Your task to perform on an android device: change keyboard looks Image 0: 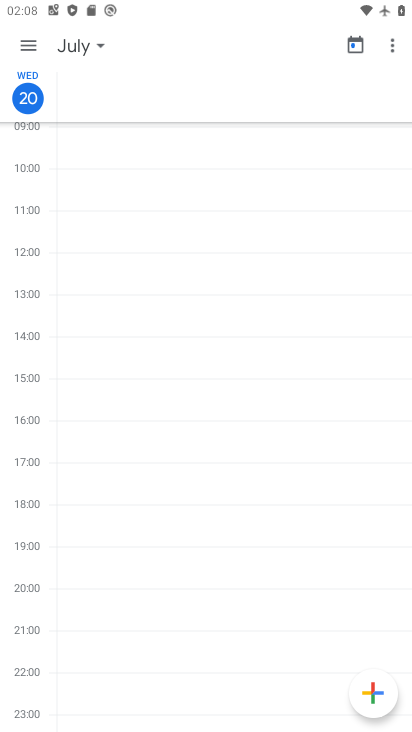
Step 0: press home button
Your task to perform on an android device: change keyboard looks Image 1: 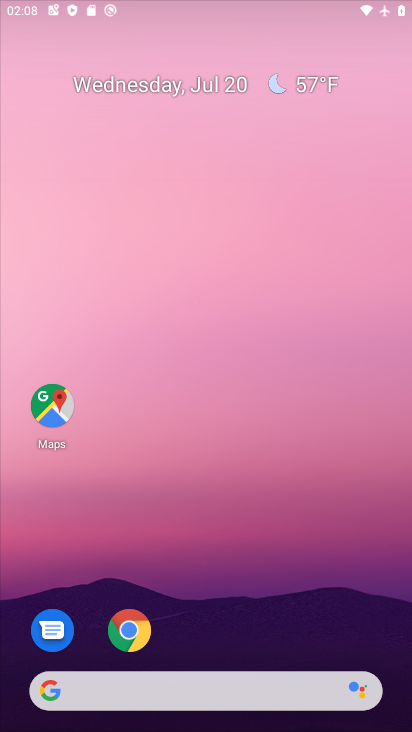
Step 1: drag from (315, 609) to (267, 95)
Your task to perform on an android device: change keyboard looks Image 2: 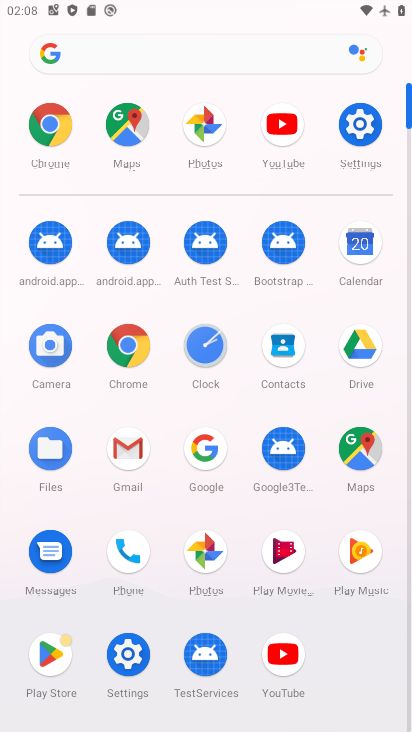
Step 2: click (353, 120)
Your task to perform on an android device: change keyboard looks Image 3: 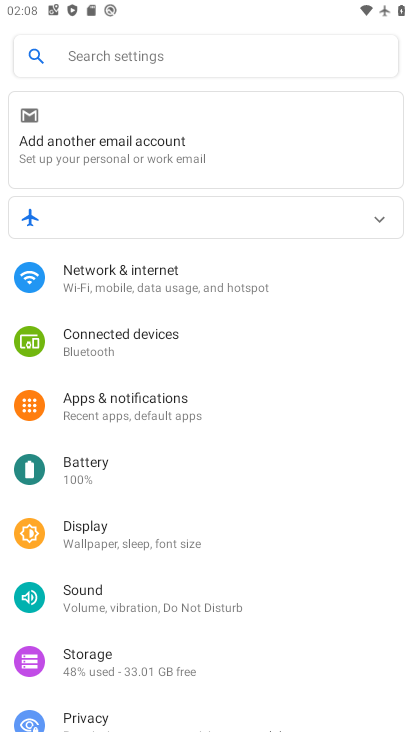
Step 3: drag from (209, 632) to (263, 97)
Your task to perform on an android device: change keyboard looks Image 4: 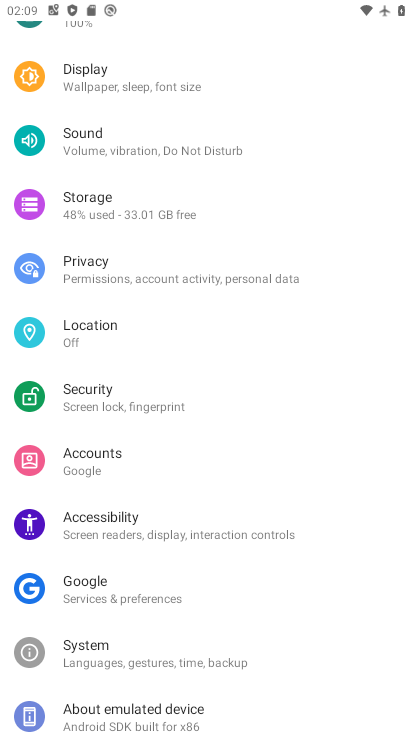
Step 4: click (161, 650)
Your task to perform on an android device: change keyboard looks Image 5: 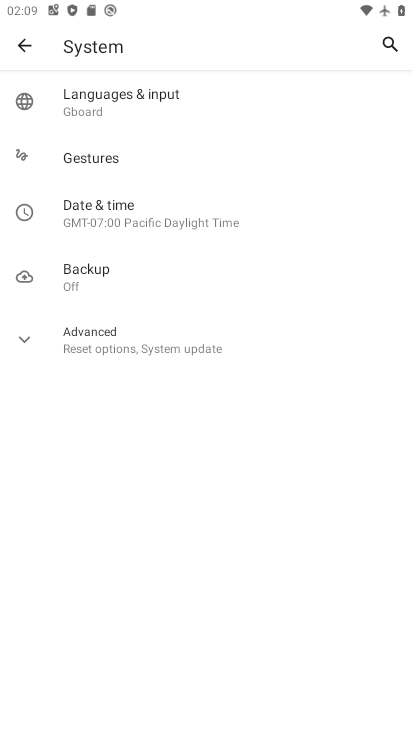
Step 5: click (117, 119)
Your task to perform on an android device: change keyboard looks Image 6: 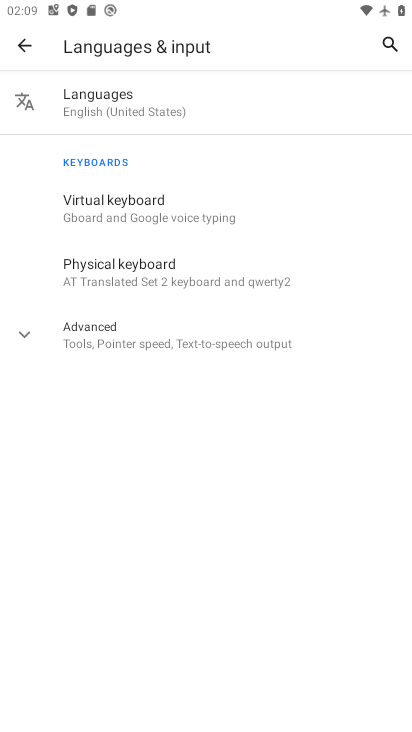
Step 6: click (139, 213)
Your task to perform on an android device: change keyboard looks Image 7: 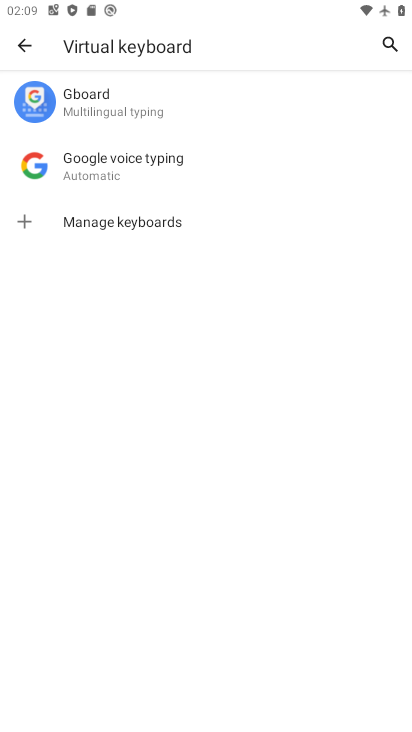
Step 7: click (111, 98)
Your task to perform on an android device: change keyboard looks Image 8: 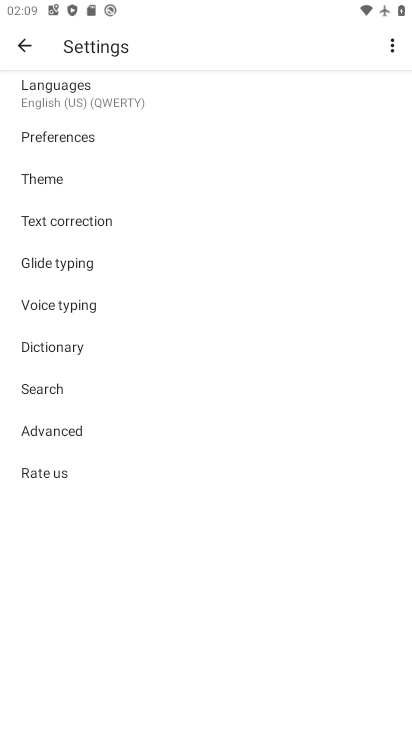
Step 8: click (58, 173)
Your task to perform on an android device: change keyboard looks Image 9: 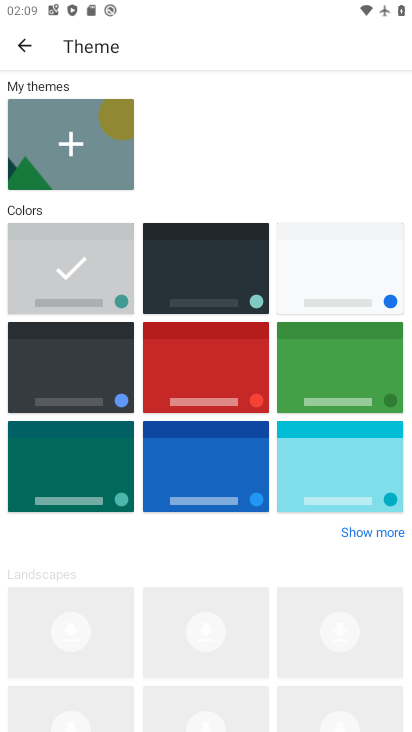
Step 9: click (315, 278)
Your task to perform on an android device: change keyboard looks Image 10: 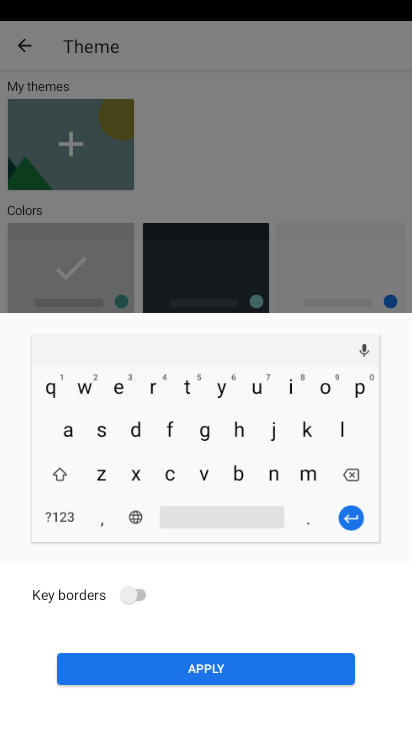
Step 10: click (274, 670)
Your task to perform on an android device: change keyboard looks Image 11: 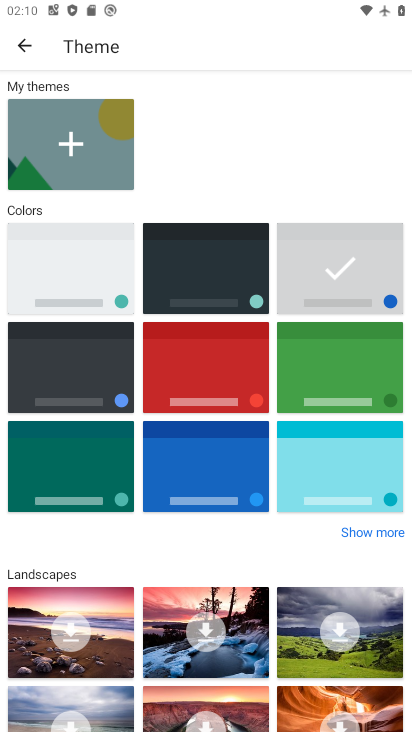
Step 11: task complete